Your task to perform on an android device: How do I get to the nearest Nordstrom? Image 0: 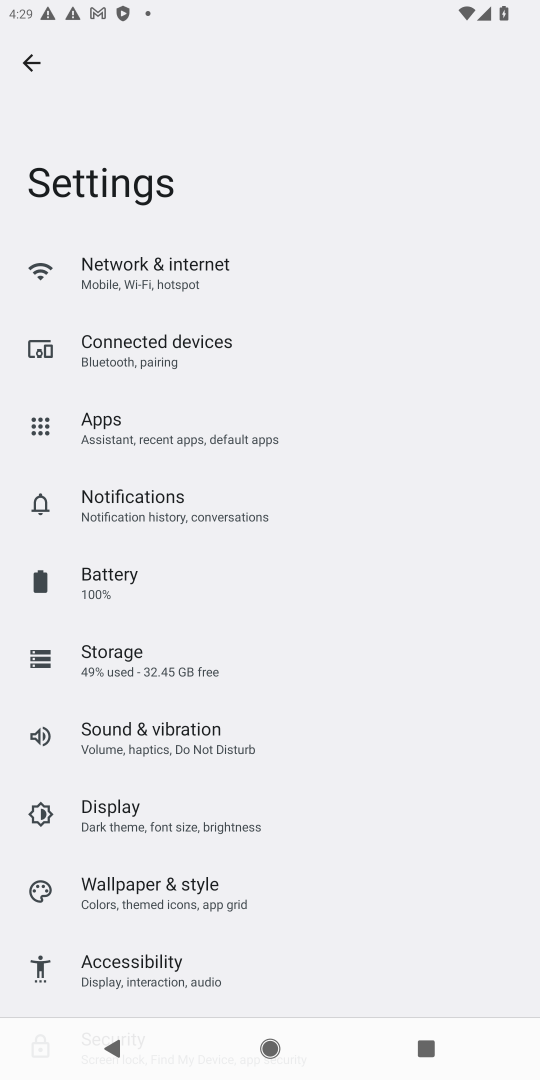
Step 0: press home button
Your task to perform on an android device: How do I get to the nearest Nordstrom? Image 1: 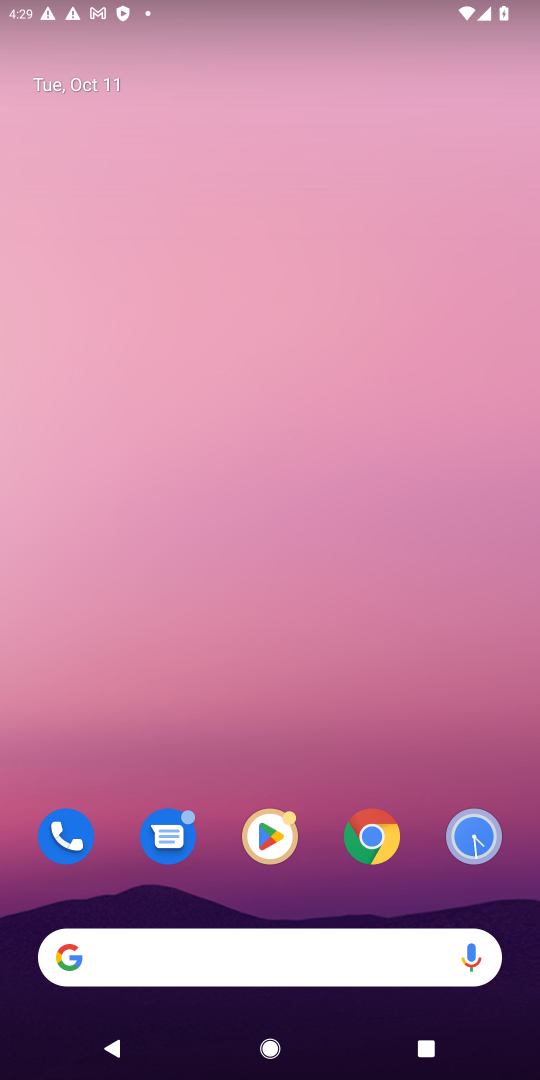
Step 1: click (373, 833)
Your task to perform on an android device: How do I get to the nearest Nordstrom? Image 2: 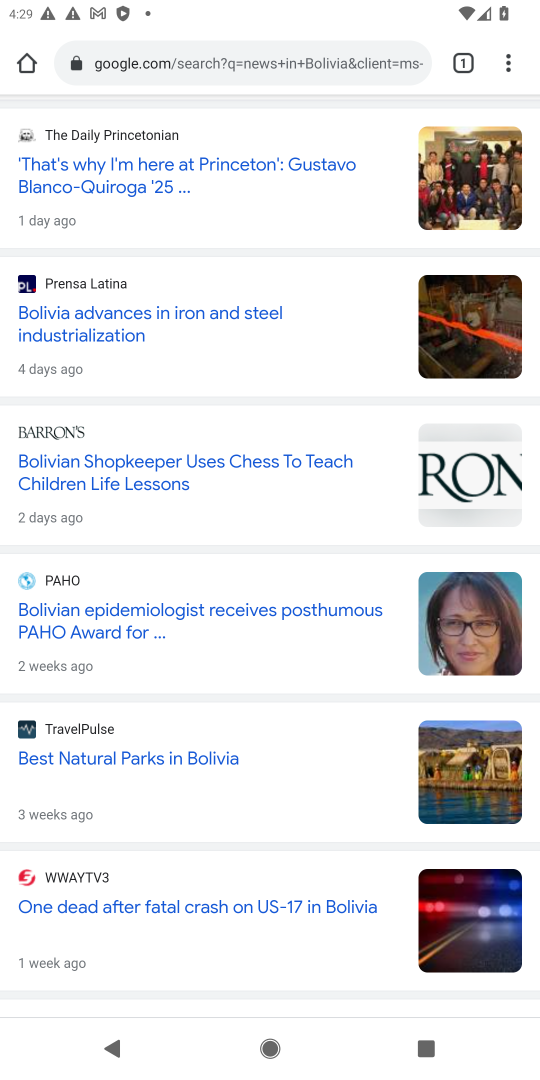
Step 2: press home button
Your task to perform on an android device: How do I get to the nearest Nordstrom? Image 3: 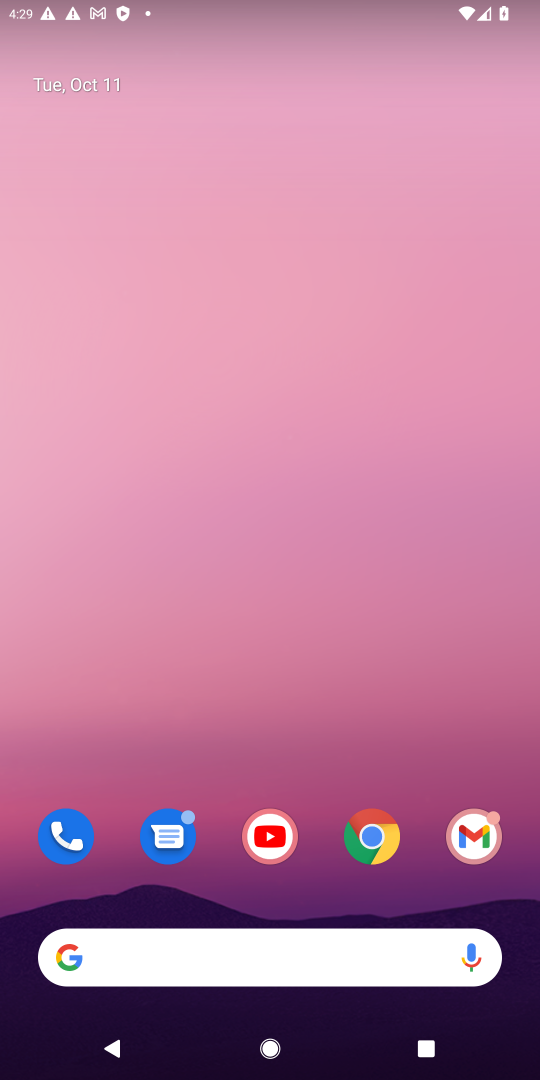
Step 3: click (367, 845)
Your task to perform on an android device: How do I get to the nearest Nordstrom? Image 4: 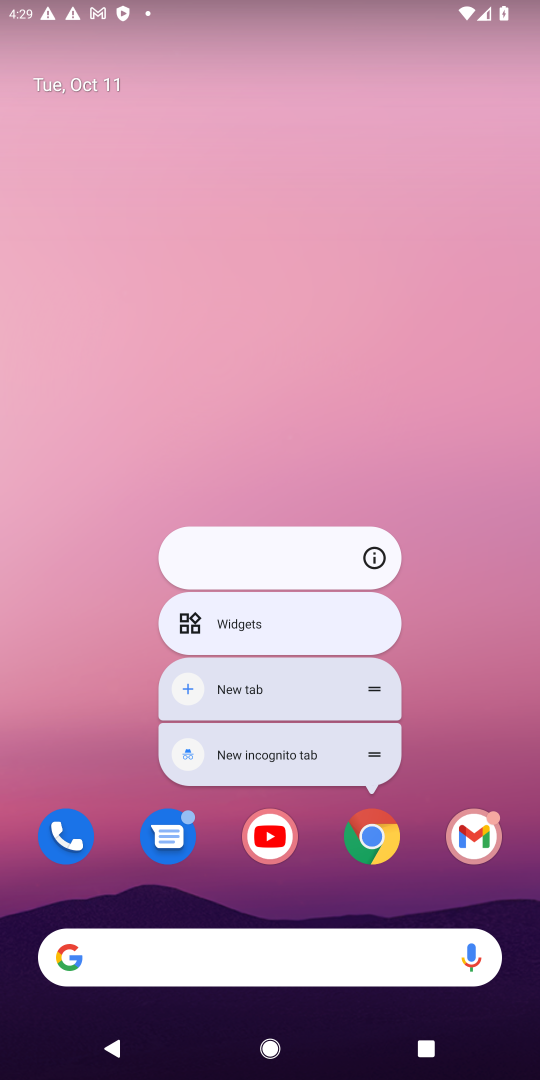
Step 4: click (385, 827)
Your task to perform on an android device: How do I get to the nearest Nordstrom? Image 5: 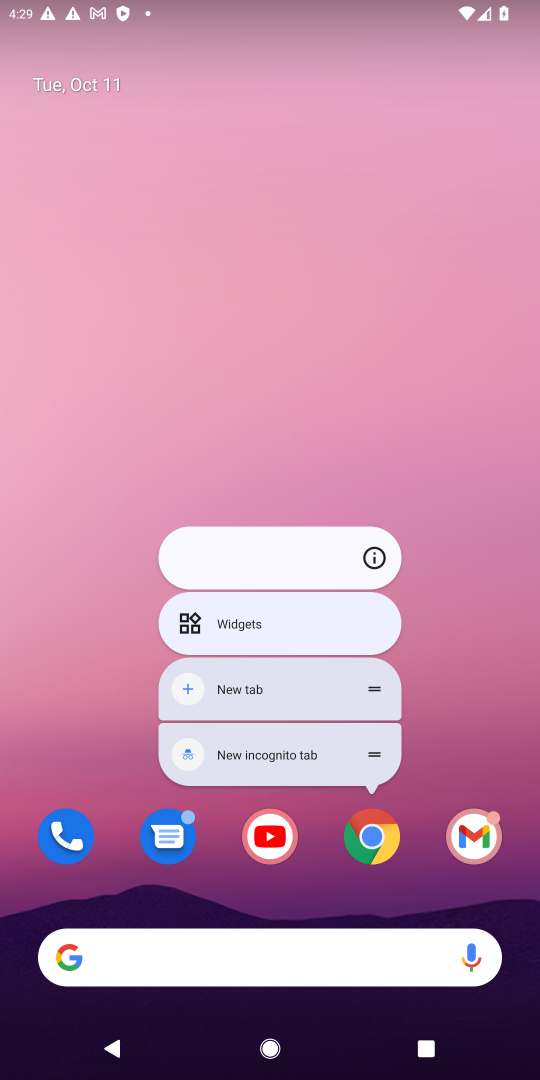
Step 5: click (380, 835)
Your task to perform on an android device: How do I get to the nearest Nordstrom? Image 6: 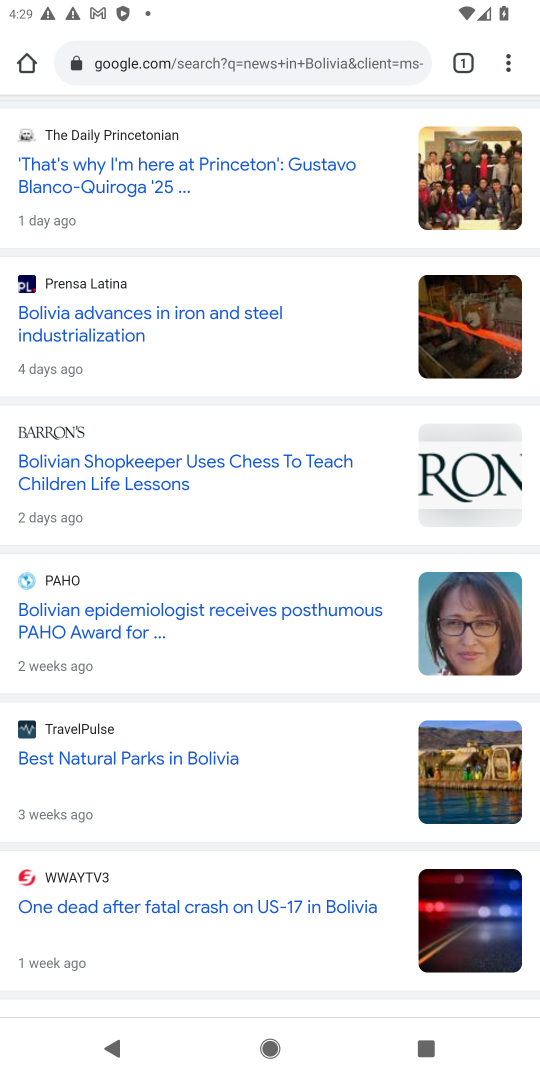
Step 6: click (321, 57)
Your task to perform on an android device: How do I get to the nearest Nordstrom? Image 7: 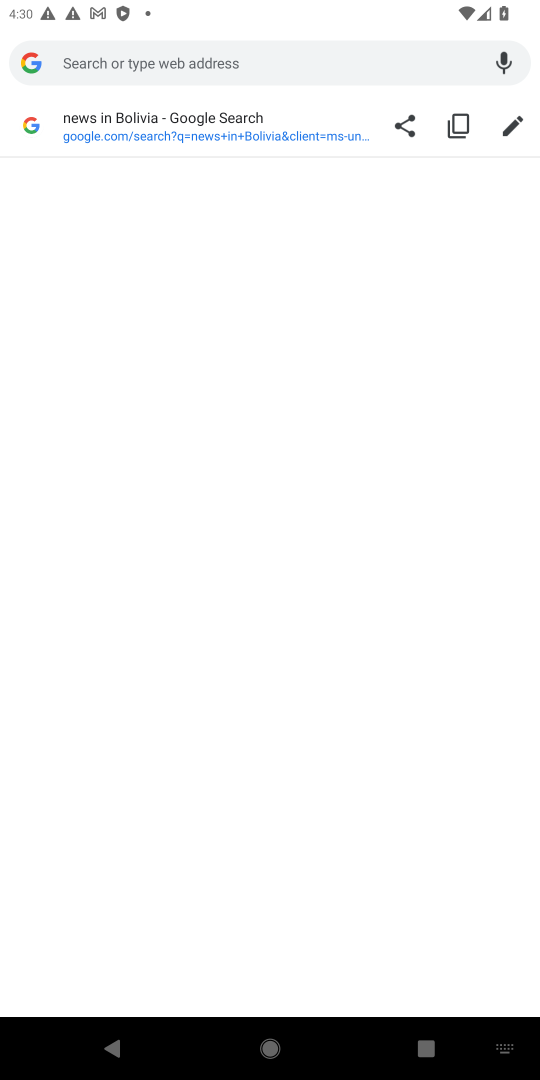
Step 7: type "How do I get to the nearest Nordstrom"
Your task to perform on an android device: How do I get to the nearest Nordstrom? Image 8: 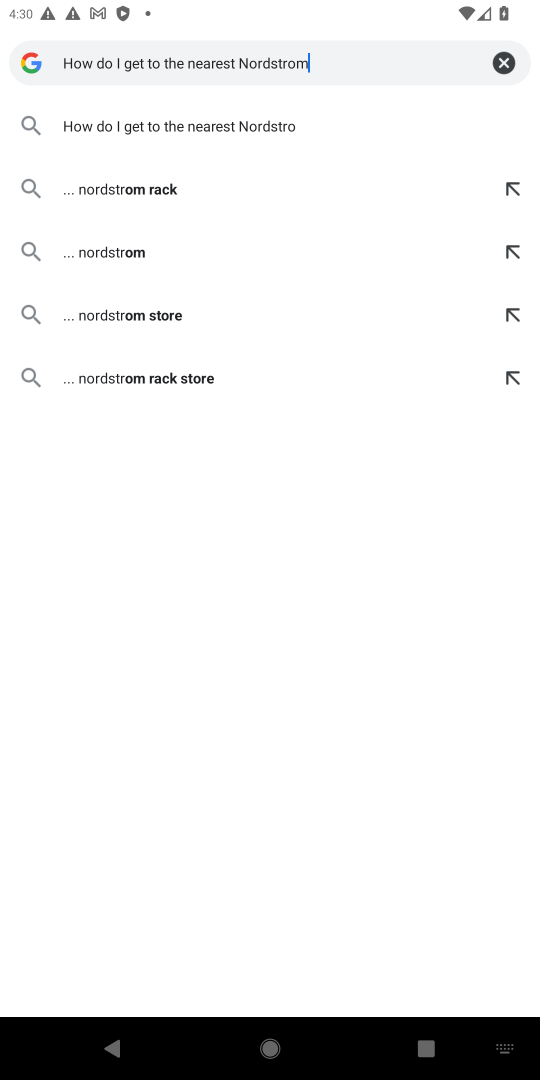
Step 8: press enter
Your task to perform on an android device: How do I get to the nearest Nordstrom? Image 9: 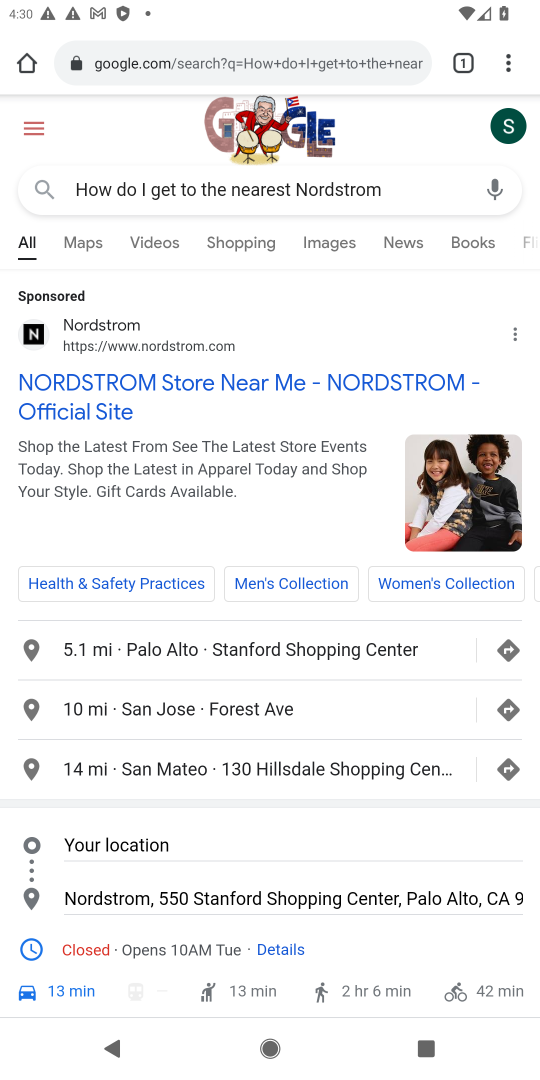
Step 9: task complete